Your task to perform on an android device: toggle translation in the chrome app Image 0: 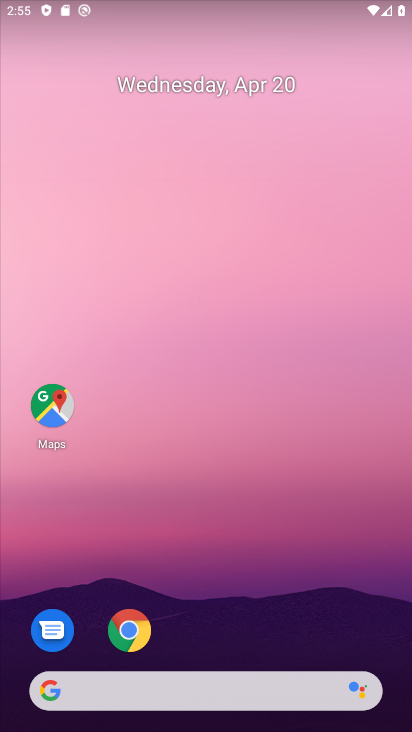
Step 0: click (319, 271)
Your task to perform on an android device: toggle translation in the chrome app Image 1: 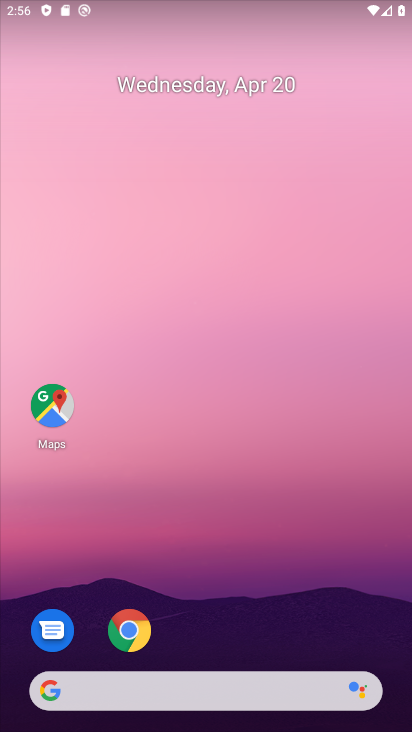
Step 1: drag from (180, 617) to (265, 309)
Your task to perform on an android device: toggle translation in the chrome app Image 2: 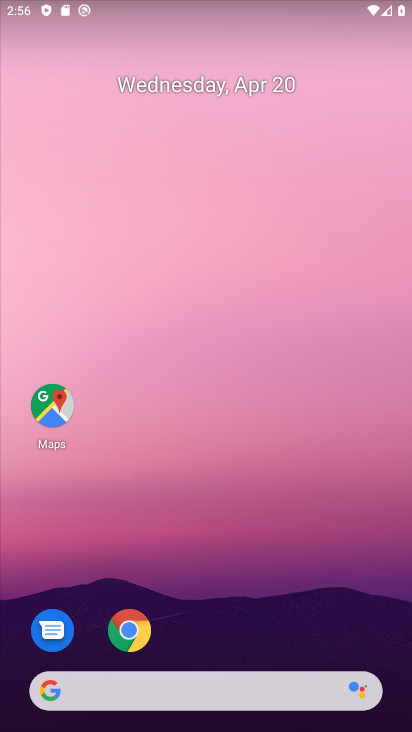
Step 2: drag from (248, 536) to (308, 193)
Your task to perform on an android device: toggle translation in the chrome app Image 3: 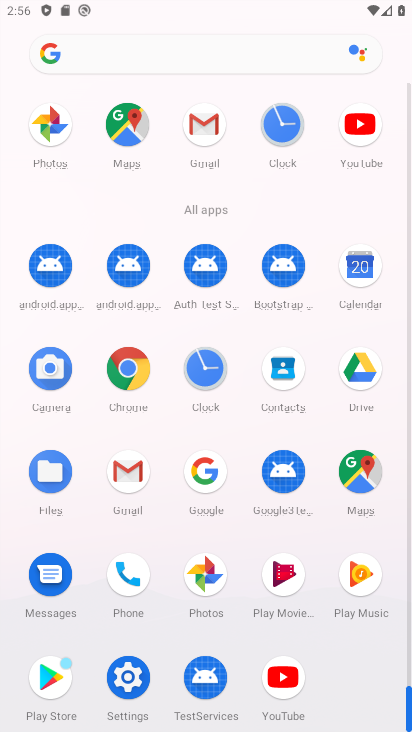
Step 3: click (124, 360)
Your task to perform on an android device: toggle translation in the chrome app Image 4: 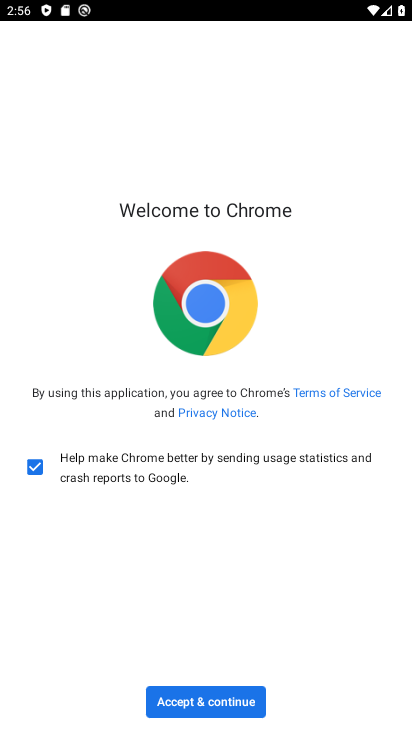
Step 4: click (224, 695)
Your task to perform on an android device: toggle translation in the chrome app Image 5: 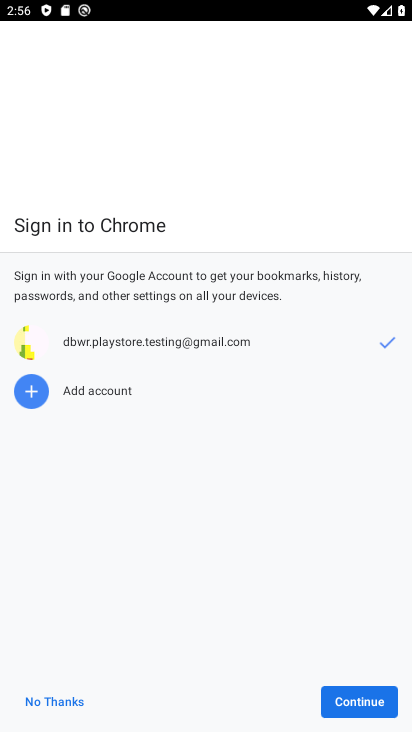
Step 5: click (351, 700)
Your task to perform on an android device: toggle translation in the chrome app Image 6: 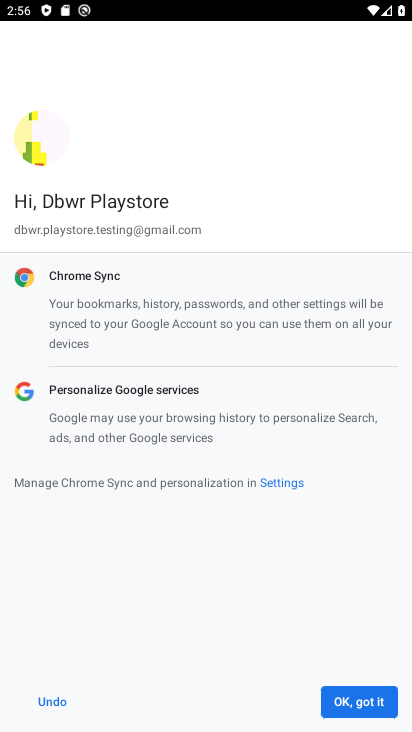
Step 6: click (351, 700)
Your task to perform on an android device: toggle translation in the chrome app Image 7: 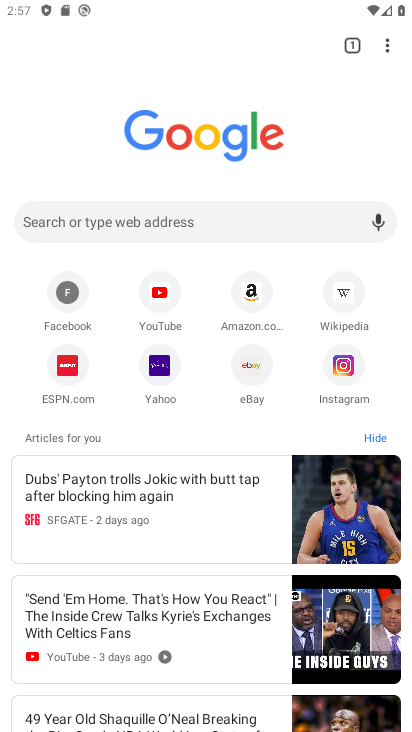
Step 7: click (387, 40)
Your task to perform on an android device: toggle translation in the chrome app Image 8: 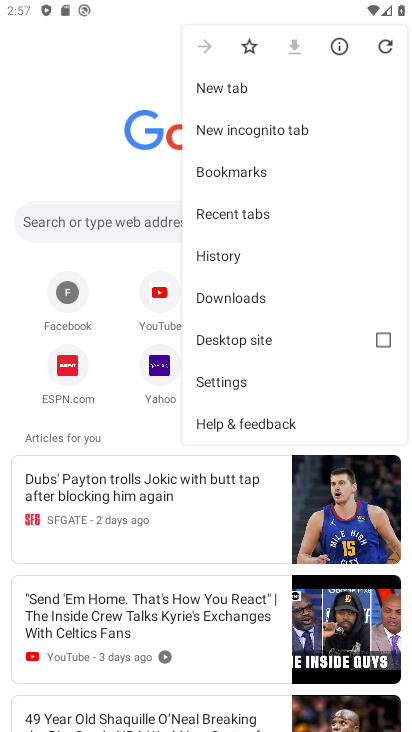
Step 8: click (231, 377)
Your task to perform on an android device: toggle translation in the chrome app Image 9: 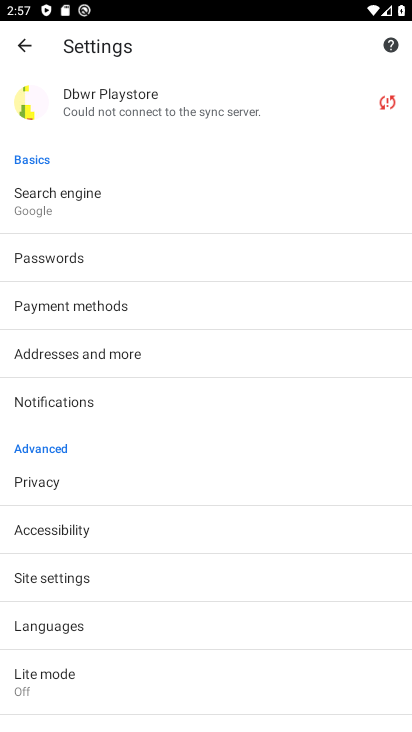
Step 9: click (120, 615)
Your task to perform on an android device: toggle translation in the chrome app Image 10: 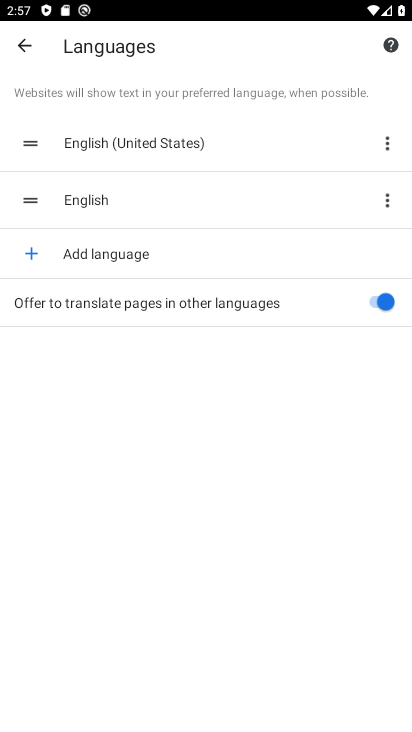
Step 10: click (375, 308)
Your task to perform on an android device: toggle translation in the chrome app Image 11: 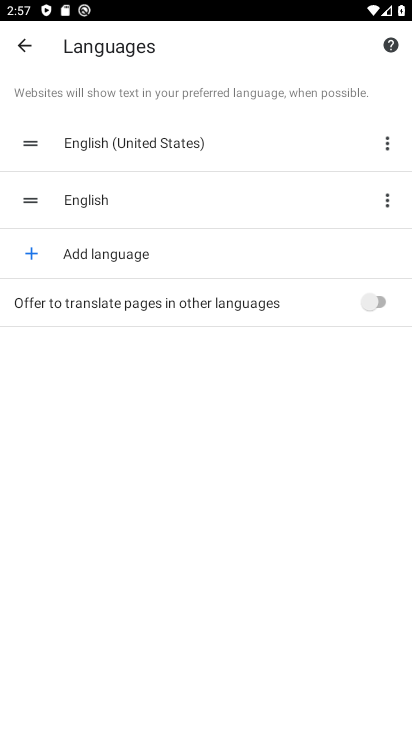
Step 11: task complete